Your task to perform on an android device: Go to wifi settings Image 0: 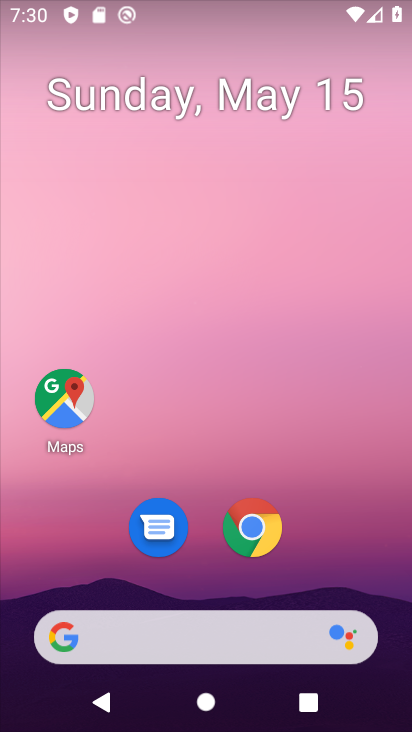
Step 0: drag from (238, 557) to (205, 124)
Your task to perform on an android device: Go to wifi settings Image 1: 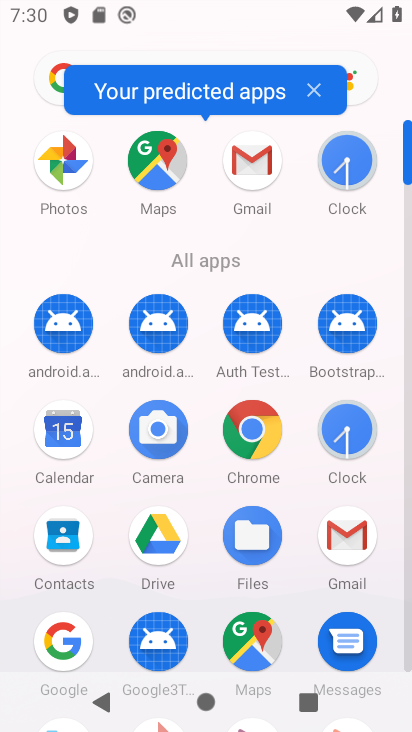
Step 1: drag from (213, 482) to (218, 102)
Your task to perform on an android device: Go to wifi settings Image 2: 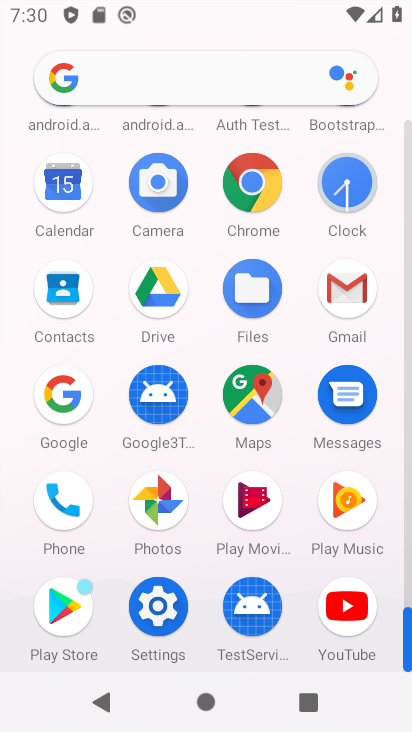
Step 2: click (157, 627)
Your task to perform on an android device: Go to wifi settings Image 3: 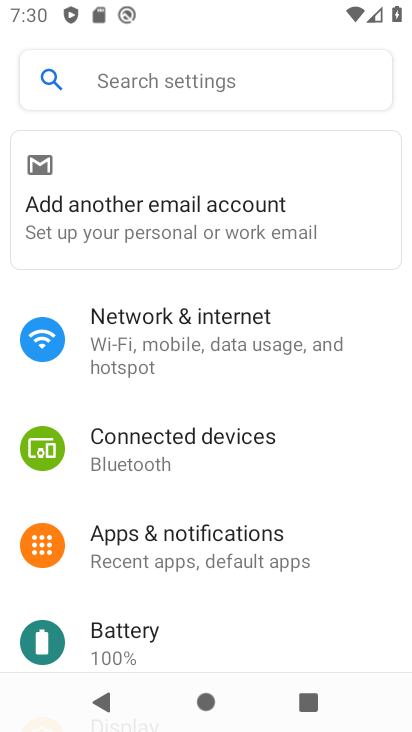
Step 3: click (134, 323)
Your task to perform on an android device: Go to wifi settings Image 4: 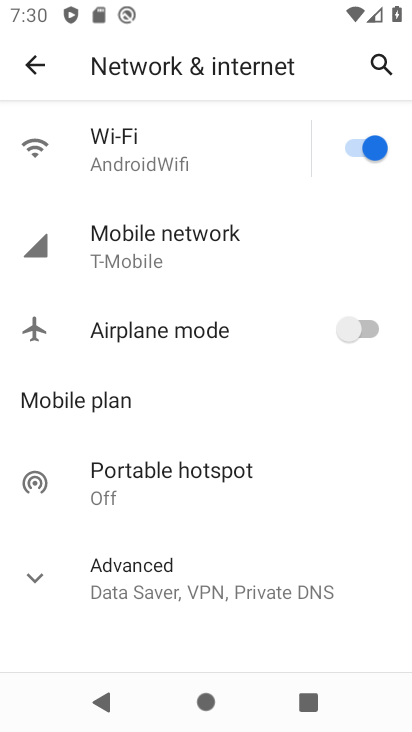
Step 4: click (124, 166)
Your task to perform on an android device: Go to wifi settings Image 5: 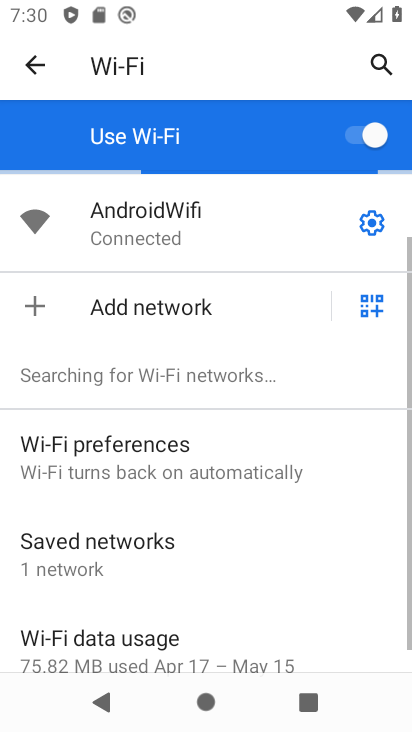
Step 5: task complete